Your task to perform on an android device: turn off wifi Image 0: 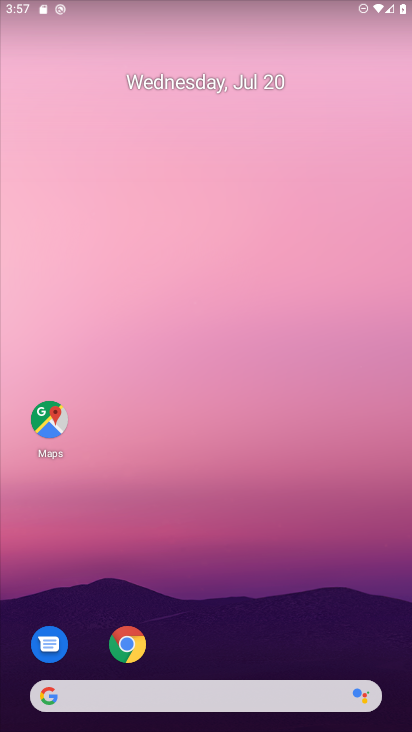
Step 0: drag from (196, 671) to (240, 44)
Your task to perform on an android device: turn off wifi Image 1: 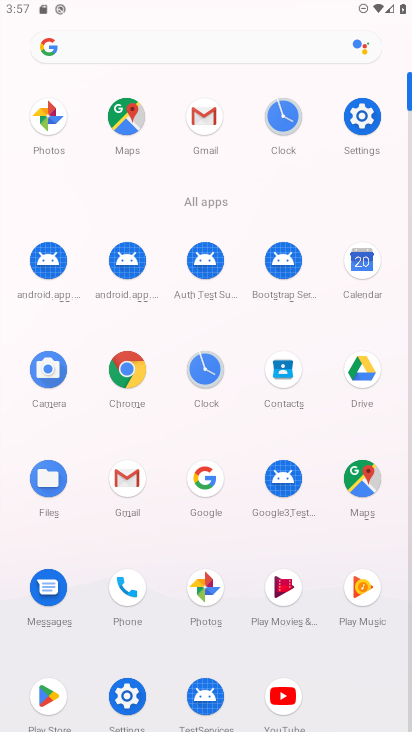
Step 1: click (351, 134)
Your task to perform on an android device: turn off wifi Image 2: 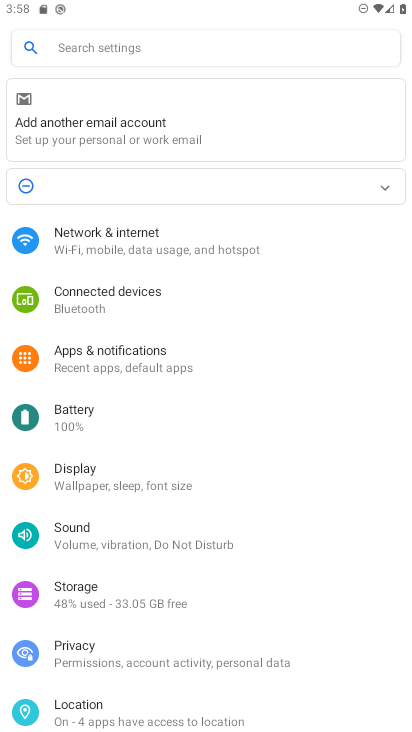
Step 2: click (93, 238)
Your task to perform on an android device: turn off wifi Image 3: 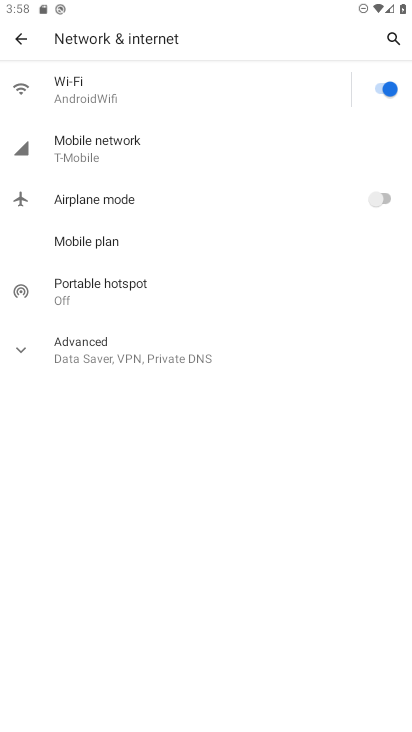
Step 3: click (378, 96)
Your task to perform on an android device: turn off wifi Image 4: 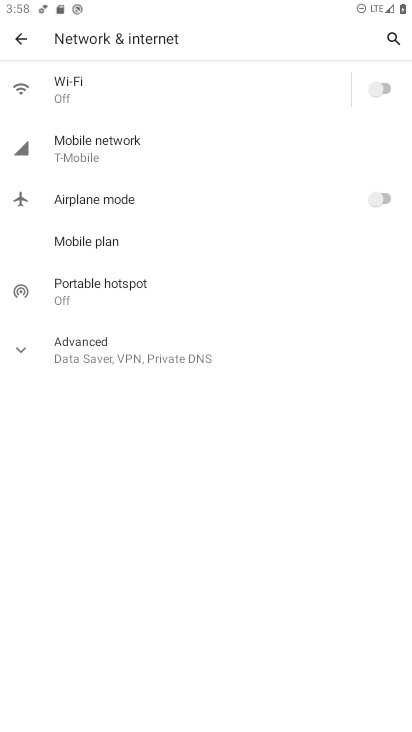
Step 4: task complete